Your task to perform on an android device: Open accessibility settings Image 0: 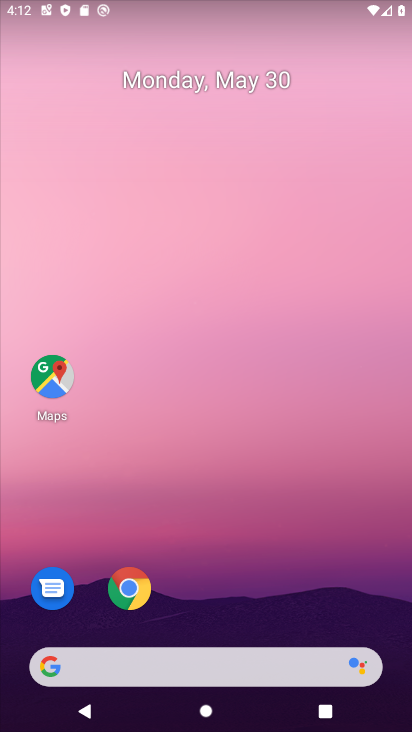
Step 0: drag from (301, 535) to (260, 131)
Your task to perform on an android device: Open accessibility settings Image 1: 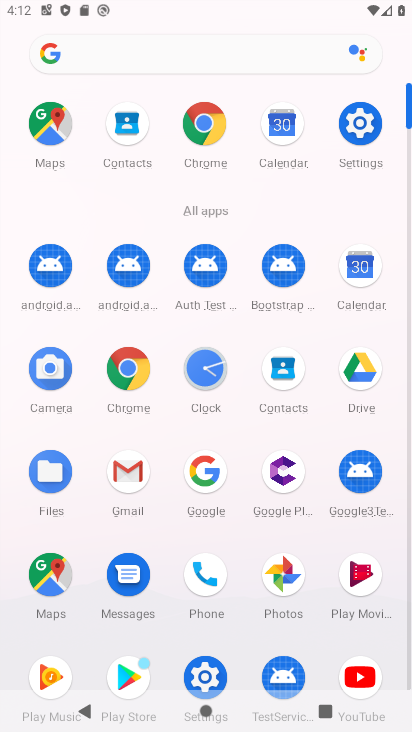
Step 1: click (353, 132)
Your task to perform on an android device: Open accessibility settings Image 2: 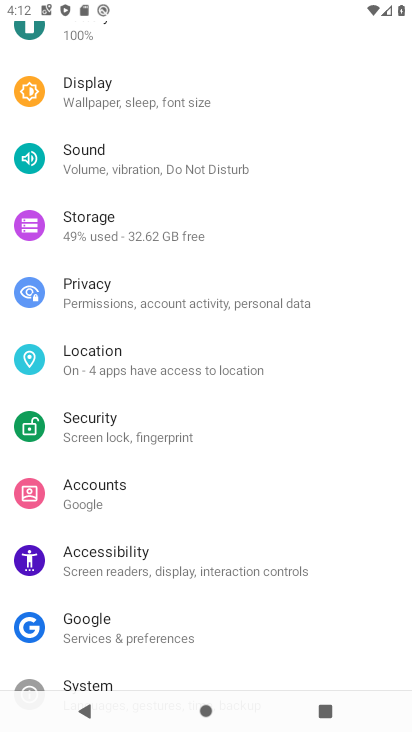
Step 2: click (83, 558)
Your task to perform on an android device: Open accessibility settings Image 3: 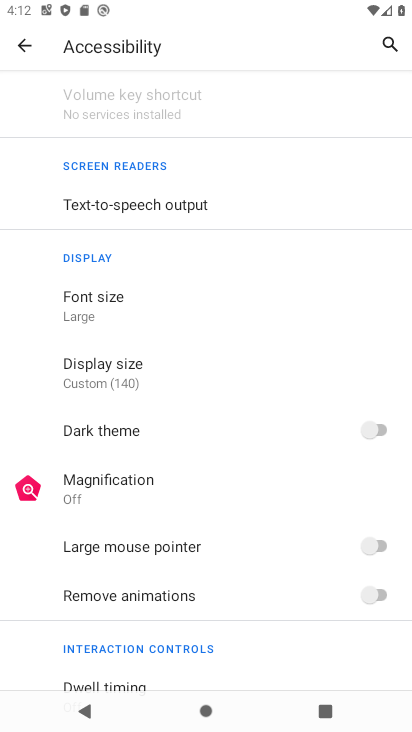
Step 3: task complete